Your task to perform on an android device: uninstall "Google Drive" Image 0: 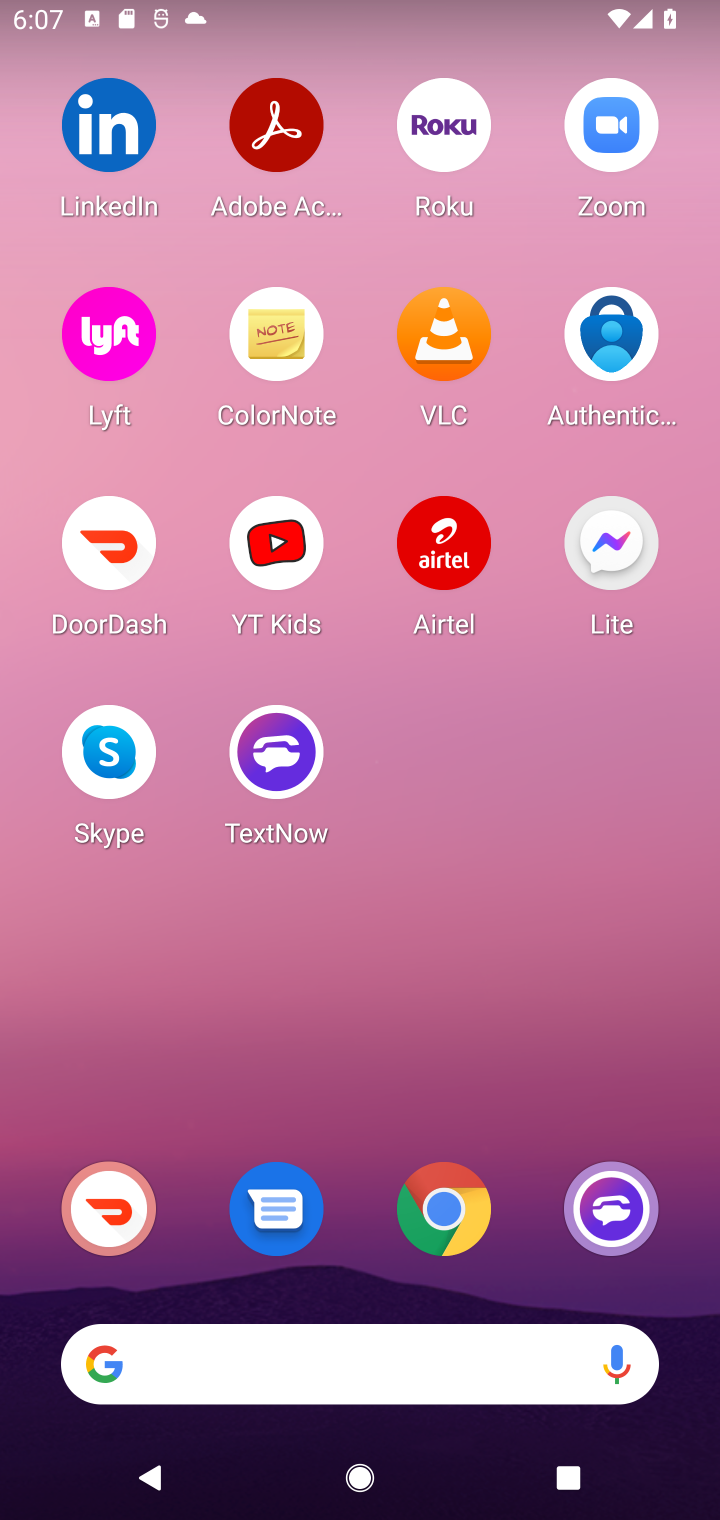
Step 0: drag from (509, 1286) to (498, 76)
Your task to perform on an android device: uninstall "Google Drive" Image 1: 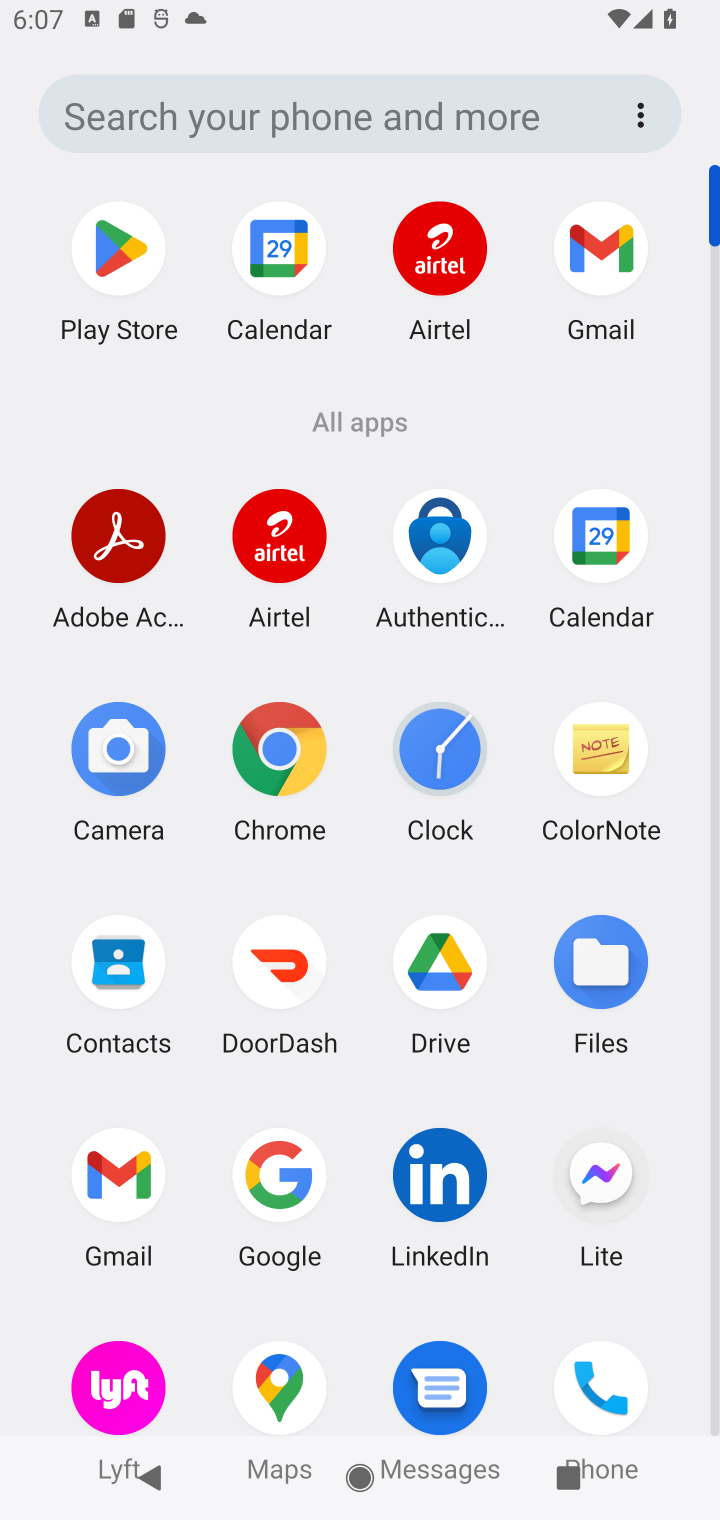
Step 1: click (122, 251)
Your task to perform on an android device: uninstall "Google Drive" Image 2: 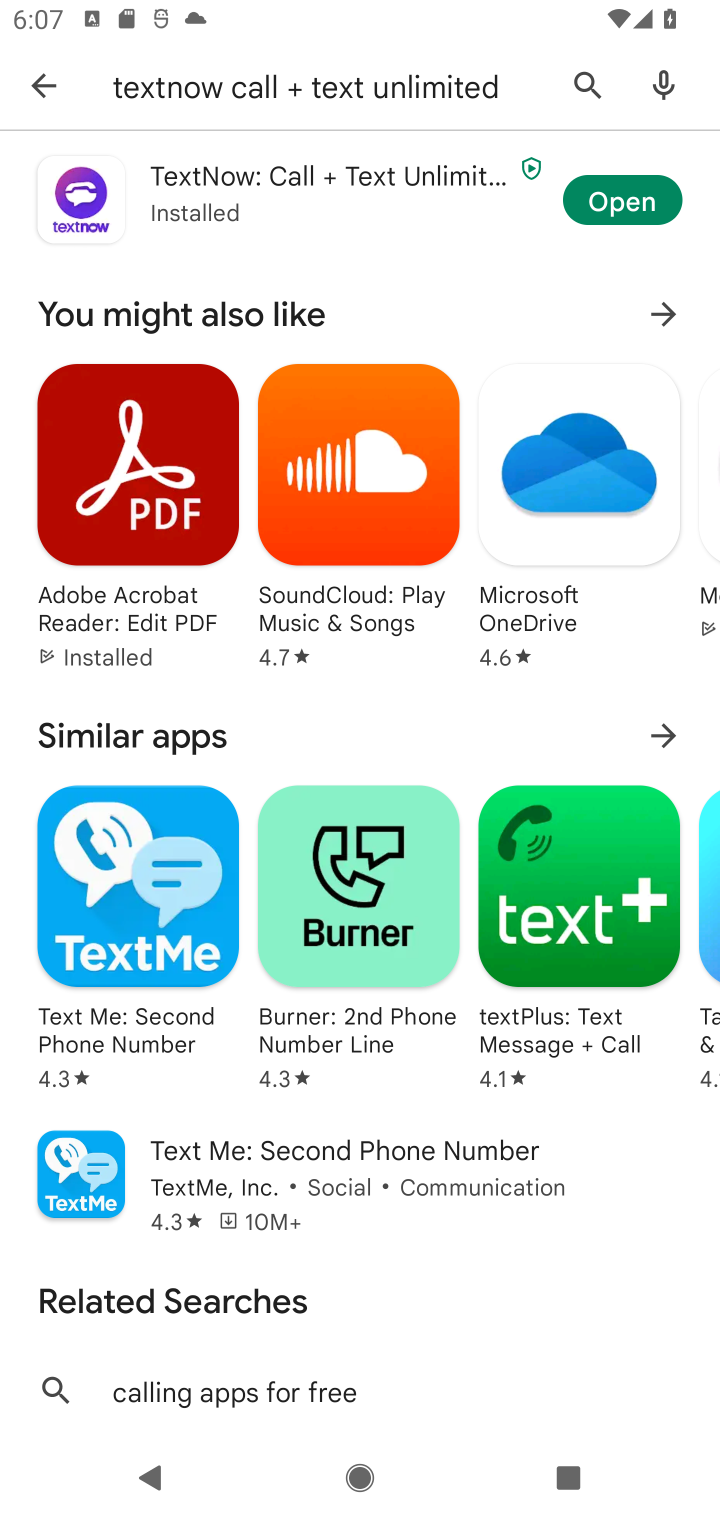
Step 2: click (571, 80)
Your task to perform on an android device: uninstall "Google Drive" Image 3: 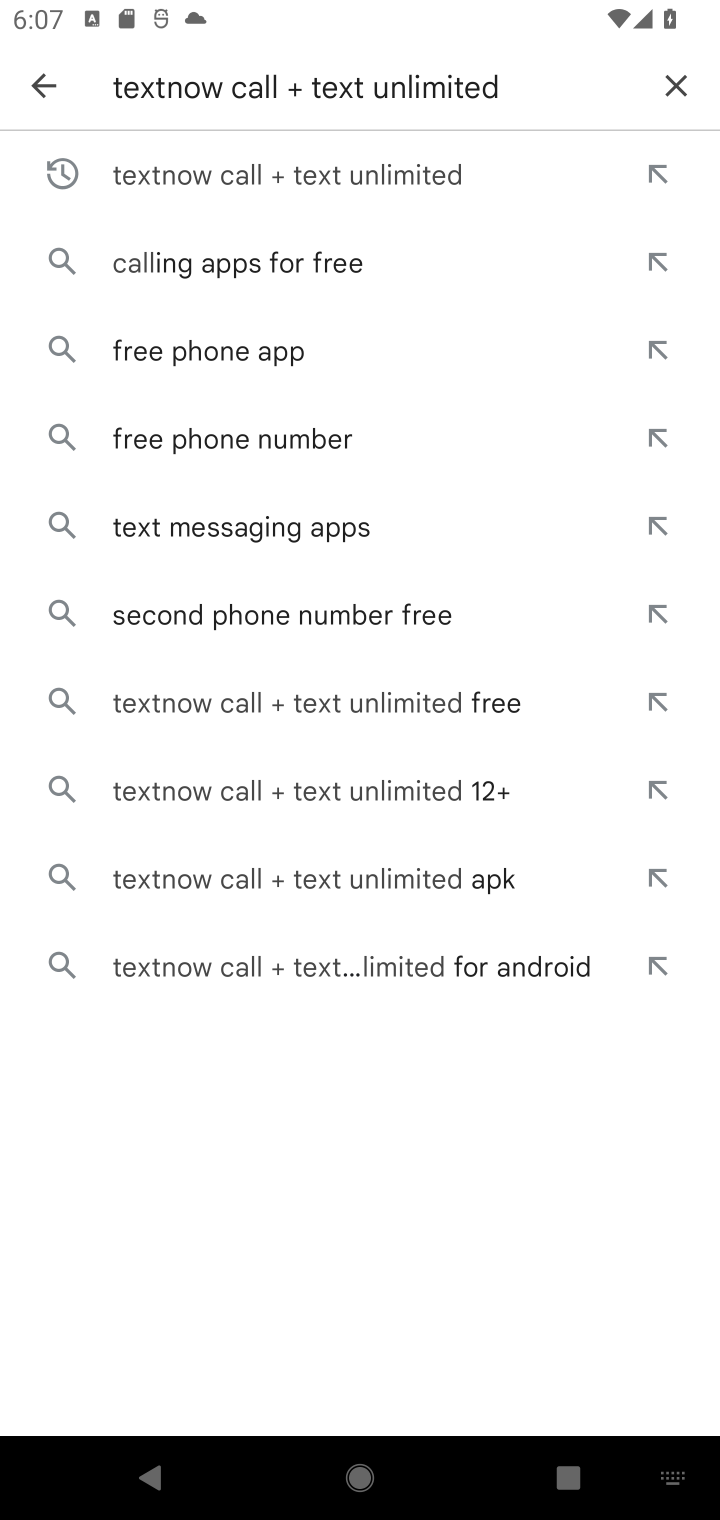
Step 3: click (662, 86)
Your task to perform on an android device: uninstall "Google Drive" Image 4: 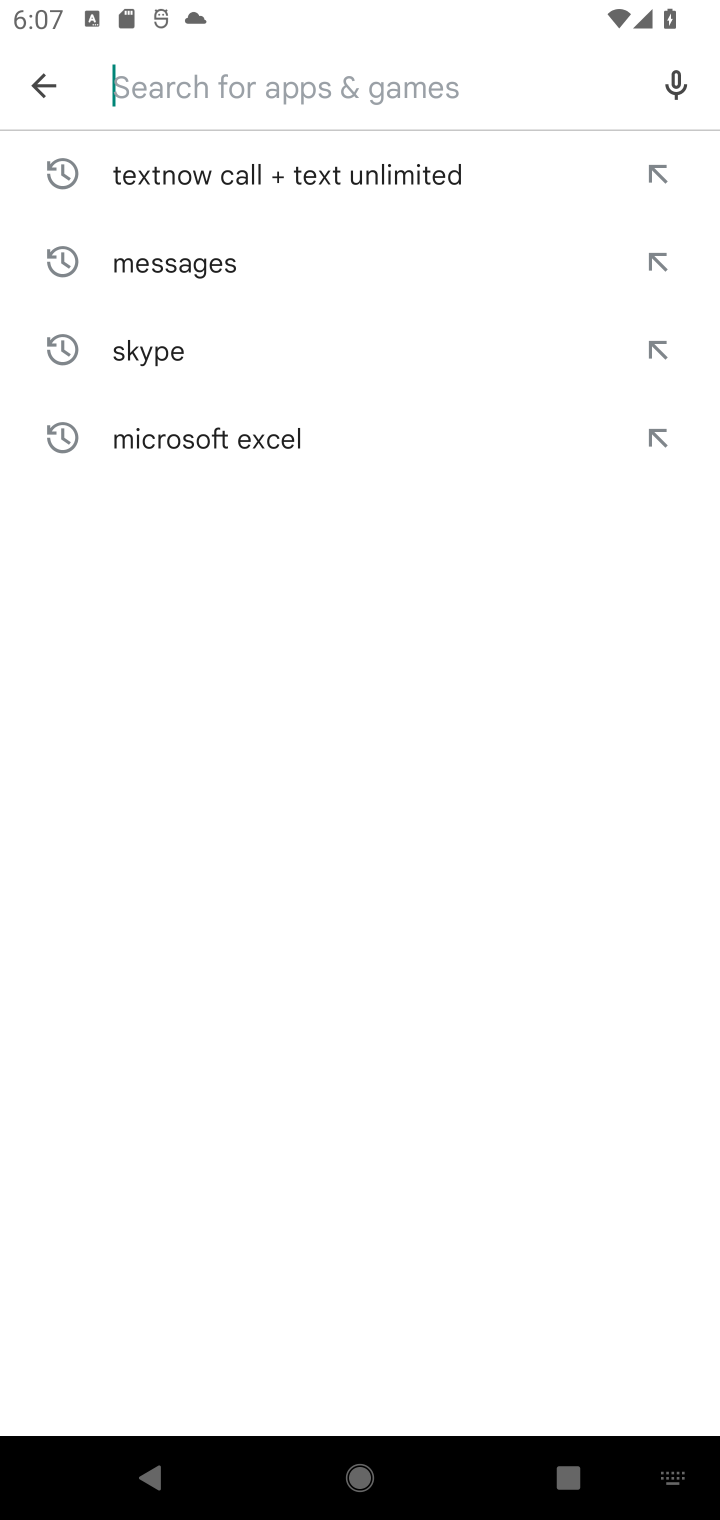
Step 4: click (426, 103)
Your task to perform on an android device: uninstall "Google Drive" Image 5: 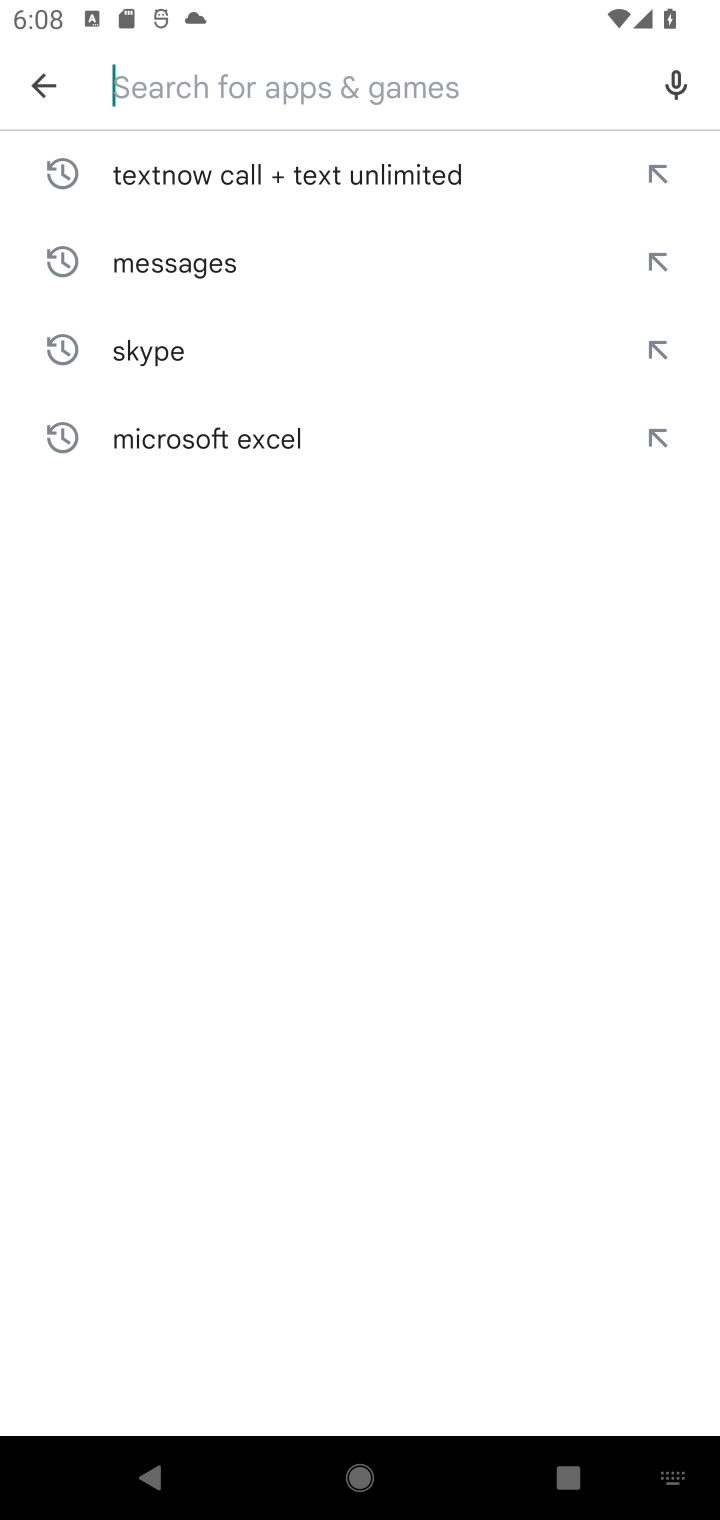
Step 5: press home button
Your task to perform on an android device: uninstall "Google Drive" Image 6: 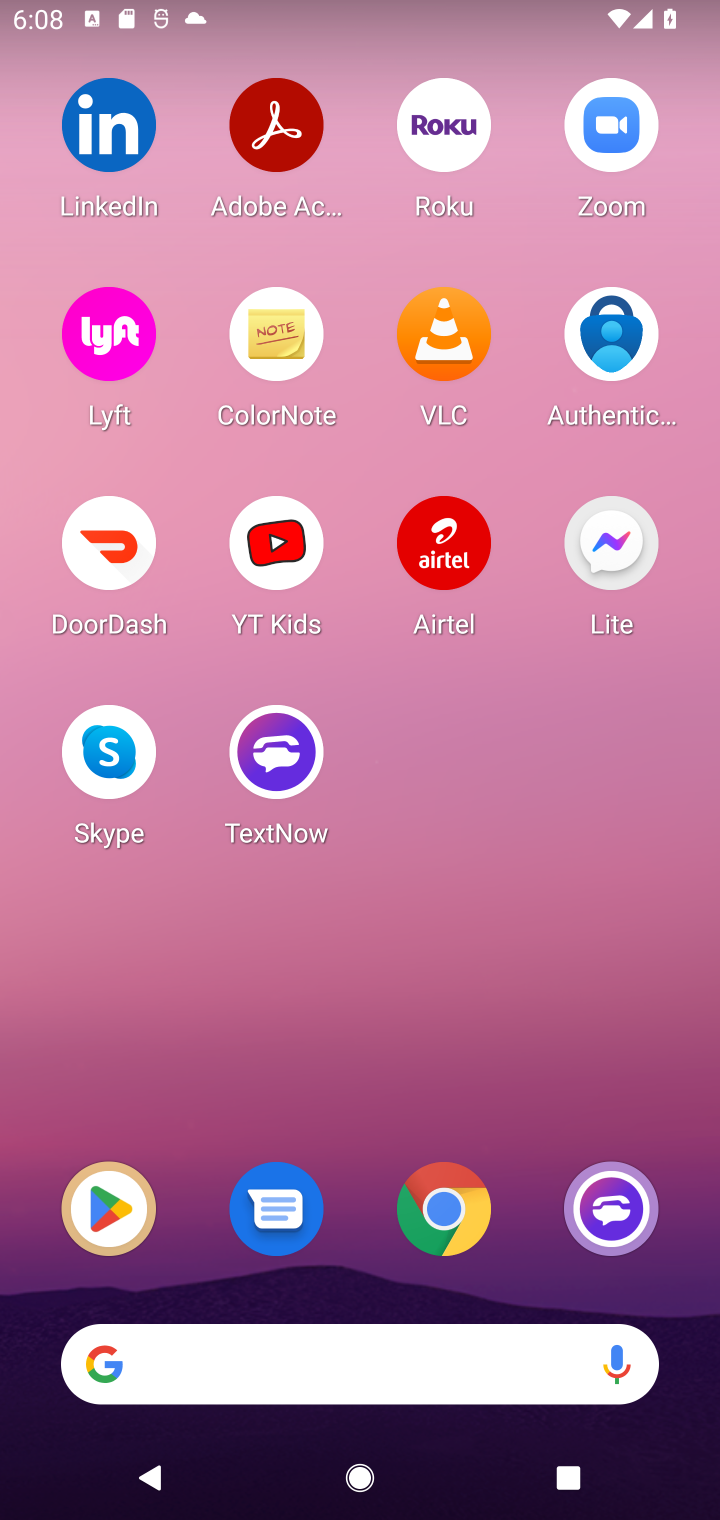
Step 6: drag from (349, 869) to (370, 128)
Your task to perform on an android device: uninstall "Google Drive" Image 7: 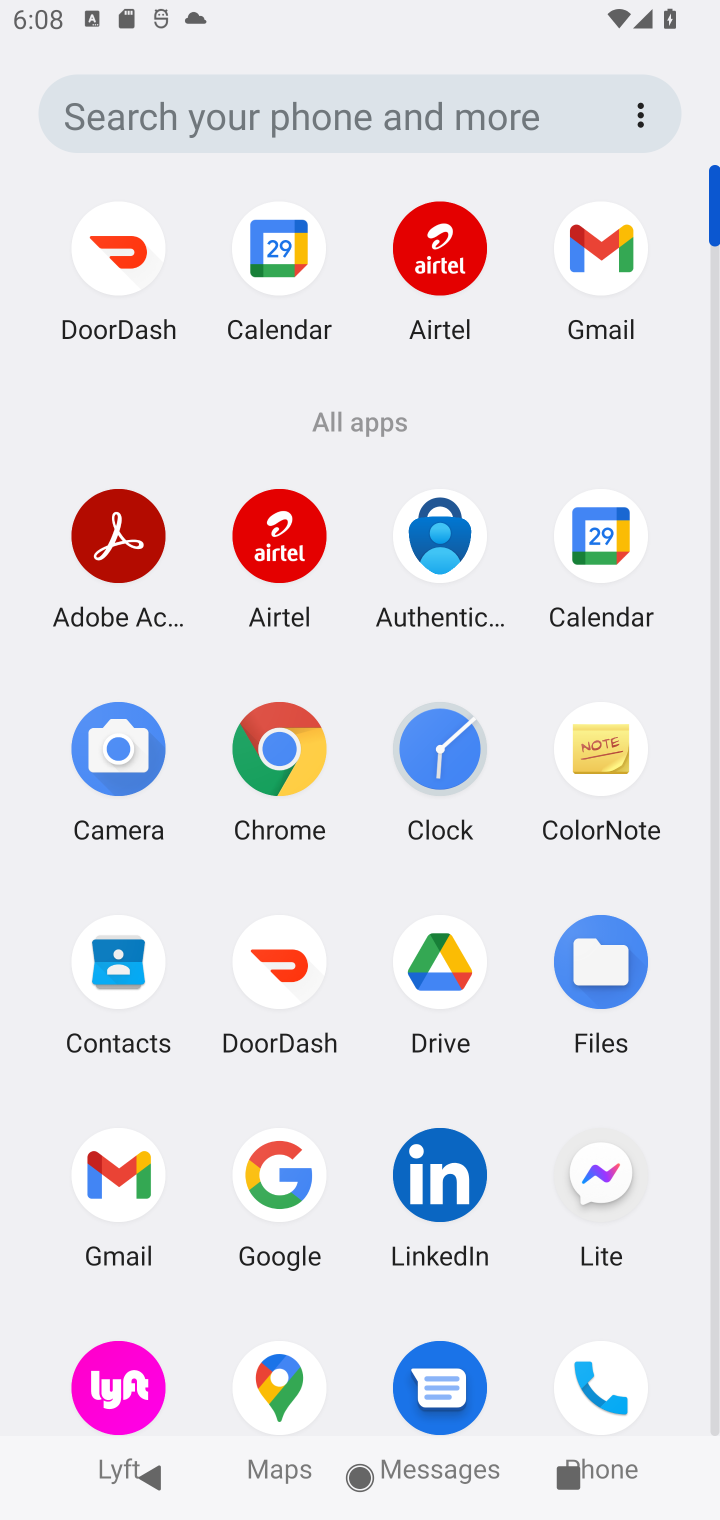
Step 7: click (436, 962)
Your task to perform on an android device: uninstall "Google Drive" Image 8: 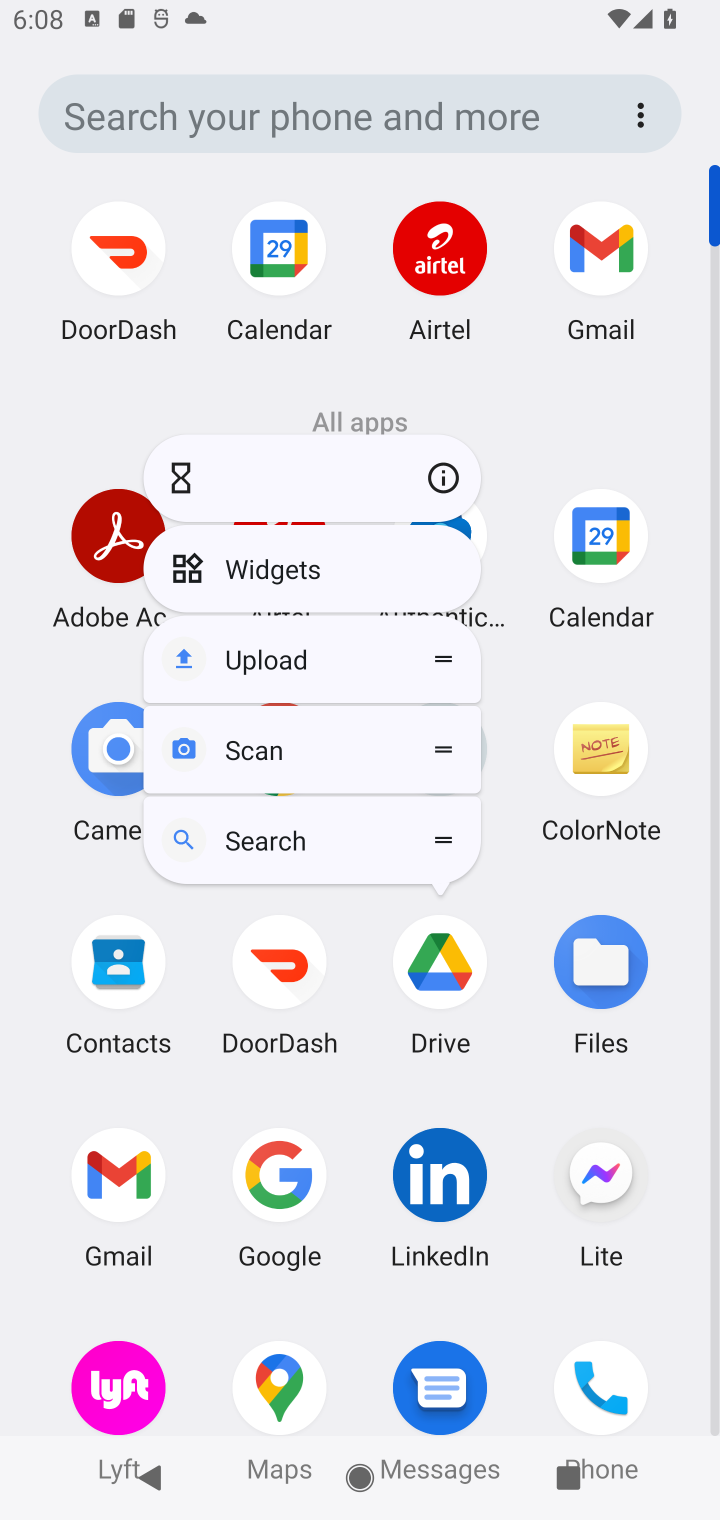
Step 8: click (449, 484)
Your task to perform on an android device: uninstall "Google Drive" Image 9: 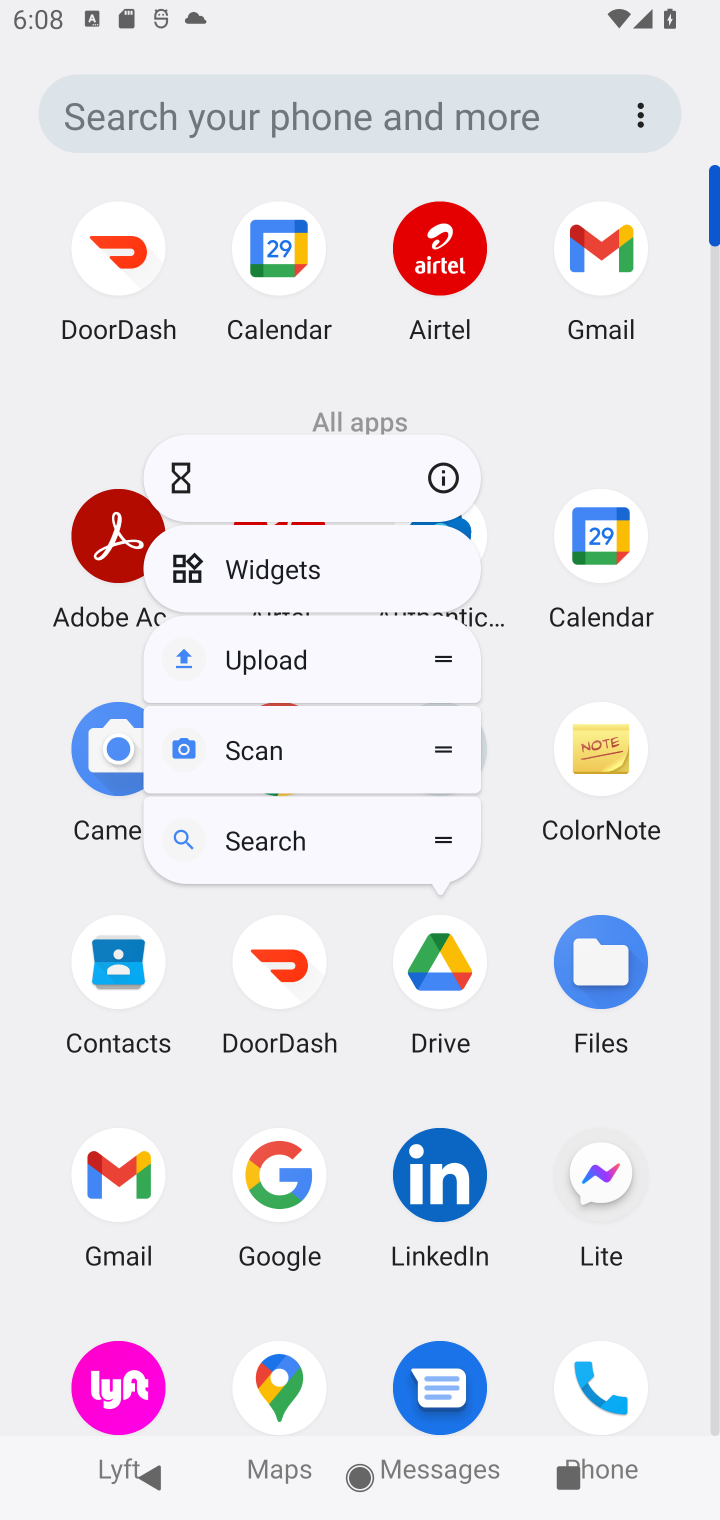
Step 9: click (445, 478)
Your task to perform on an android device: uninstall "Google Drive" Image 10: 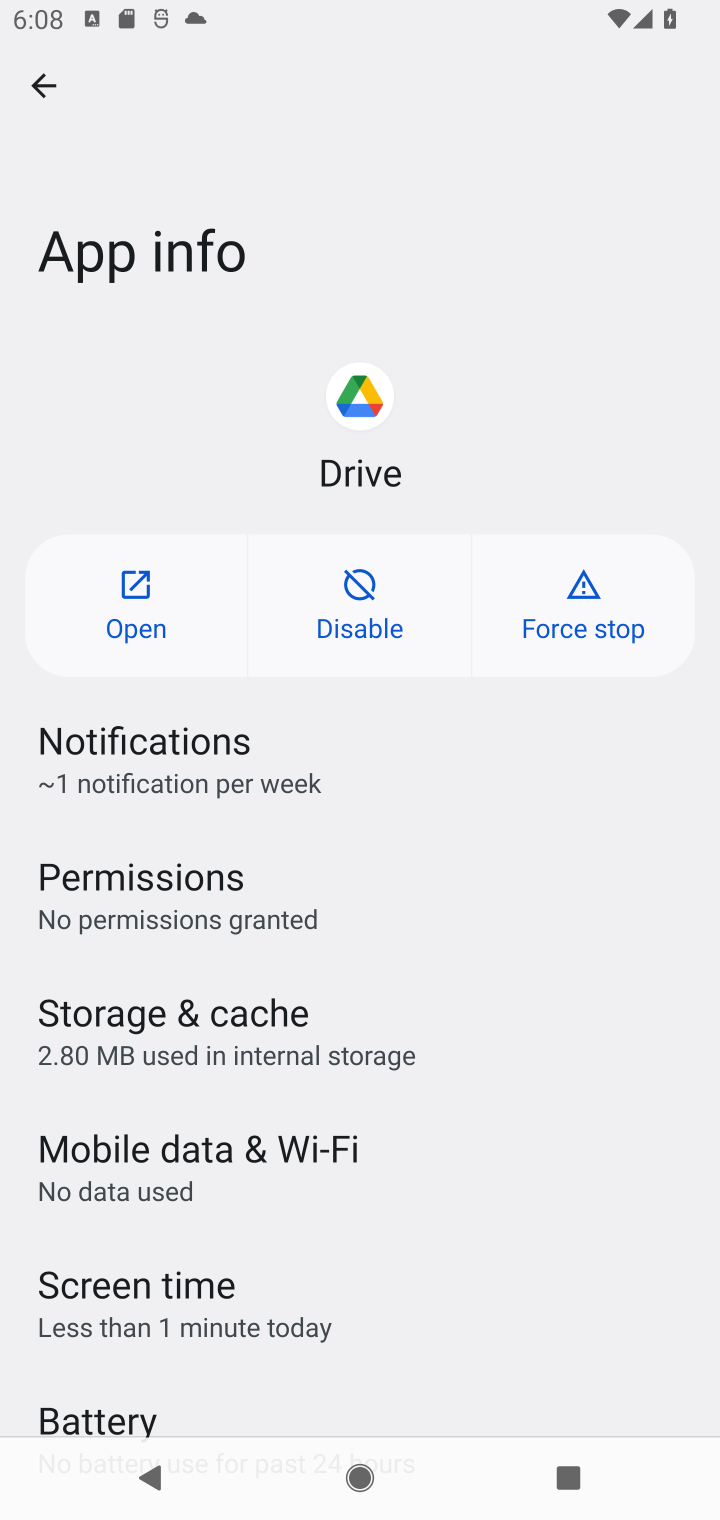
Step 10: task complete